Your task to perform on an android device: open app "DuckDuckGo Privacy Browser" Image 0: 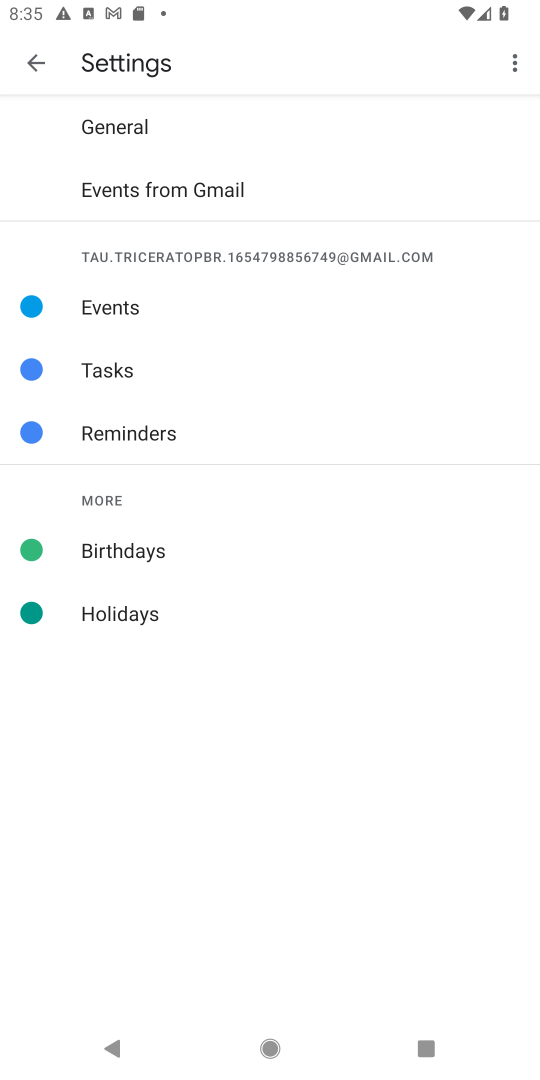
Step 0: press home button
Your task to perform on an android device: open app "DuckDuckGo Privacy Browser" Image 1: 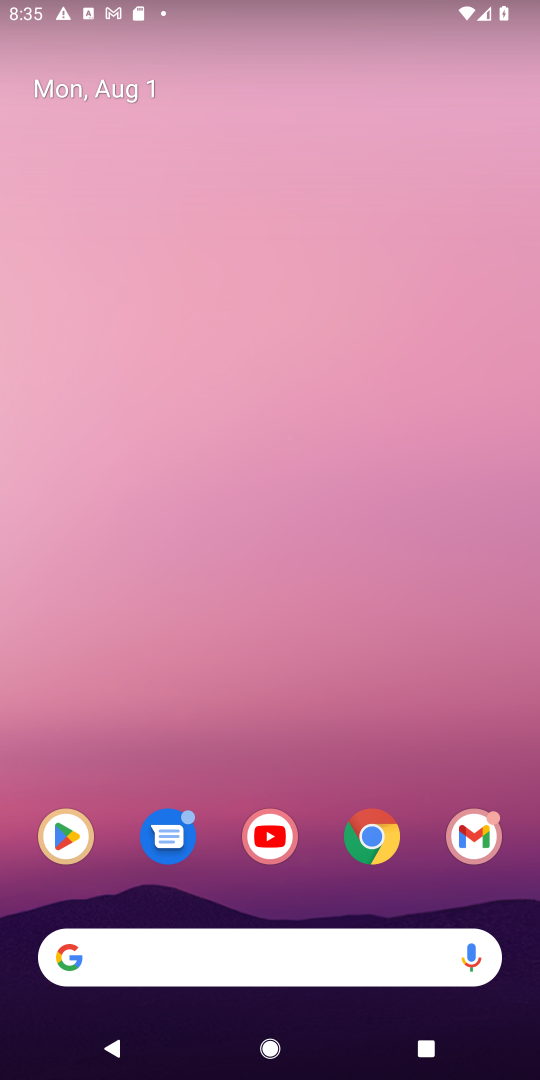
Step 1: click (67, 826)
Your task to perform on an android device: open app "DuckDuckGo Privacy Browser" Image 2: 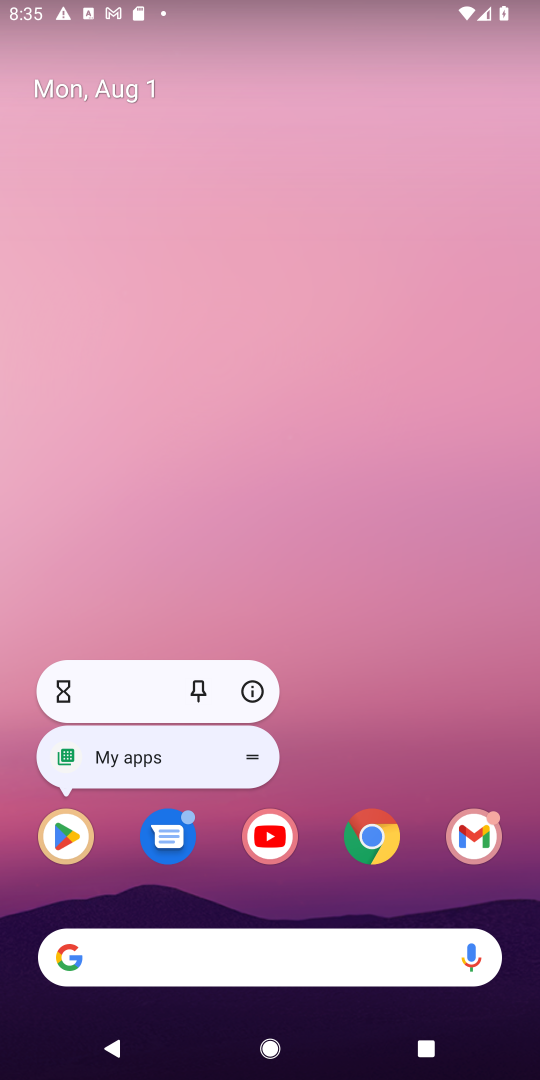
Step 2: click (67, 833)
Your task to perform on an android device: open app "DuckDuckGo Privacy Browser" Image 3: 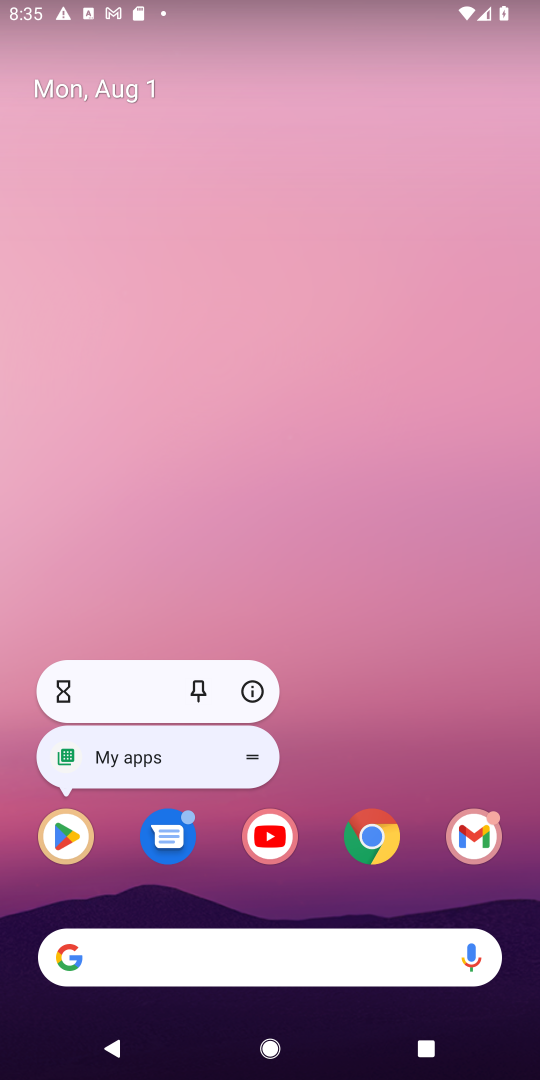
Step 3: click (68, 834)
Your task to perform on an android device: open app "DuckDuckGo Privacy Browser" Image 4: 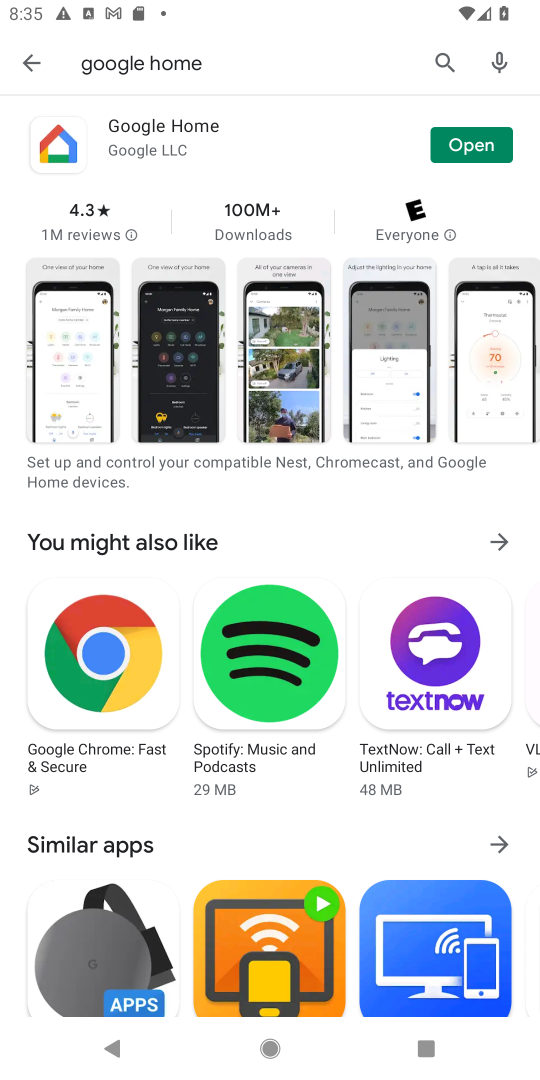
Step 4: click (447, 65)
Your task to perform on an android device: open app "DuckDuckGo Privacy Browser" Image 5: 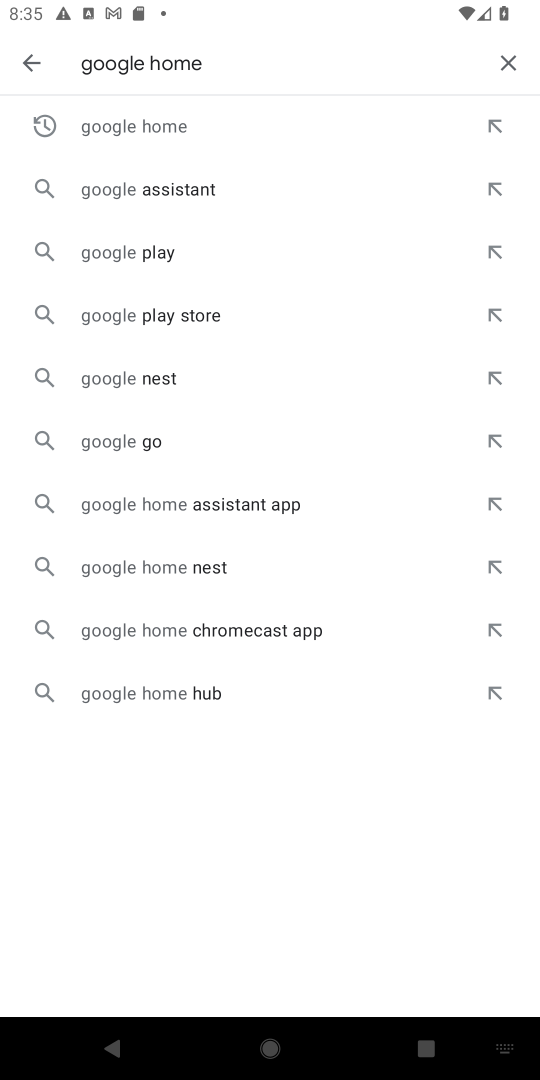
Step 5: click (502, 59)
Your task to perform on an android device: open app "DuckDuckGo Privacy Browser" Image 6: 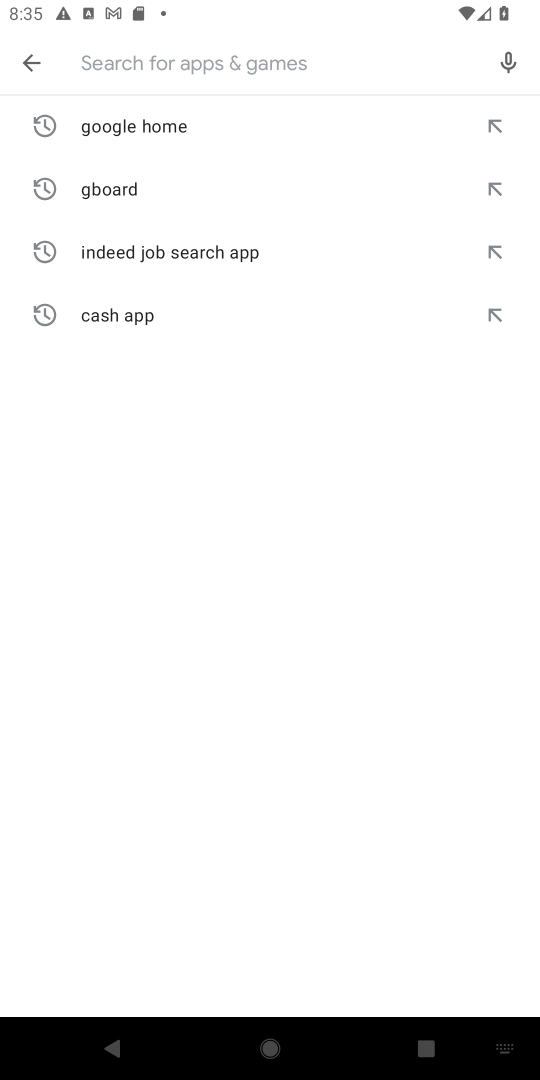
Step 6: type "DuckDuckGo Privacy Browser"
Your task to perform on an android device: open app "DuckDuckGo Privacy Browser" Image 7: 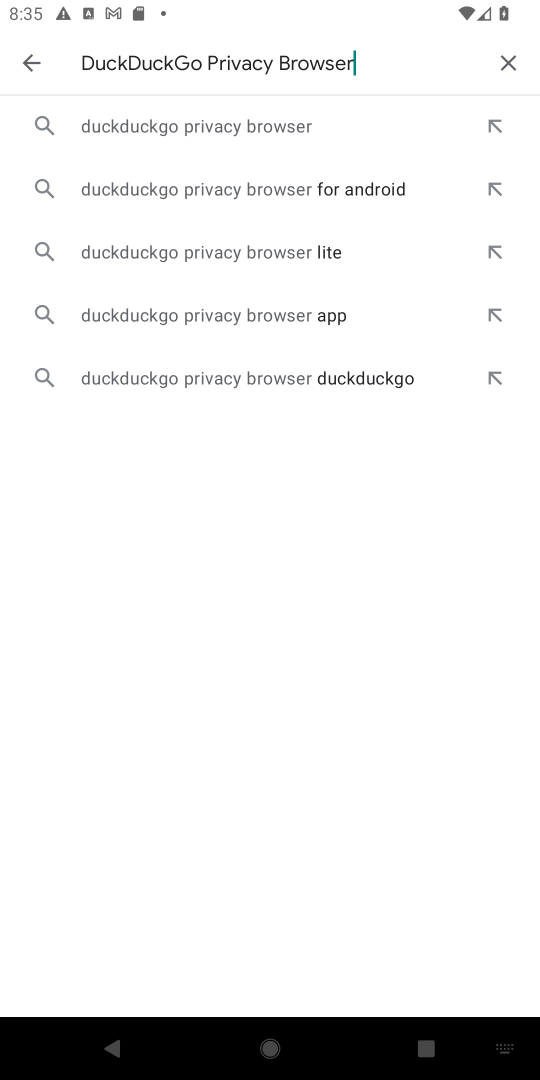
Step 7: click (250, 112)
Your task to perform on an android device: open app "DuckDuckGo Privacy Browser" Image 8: 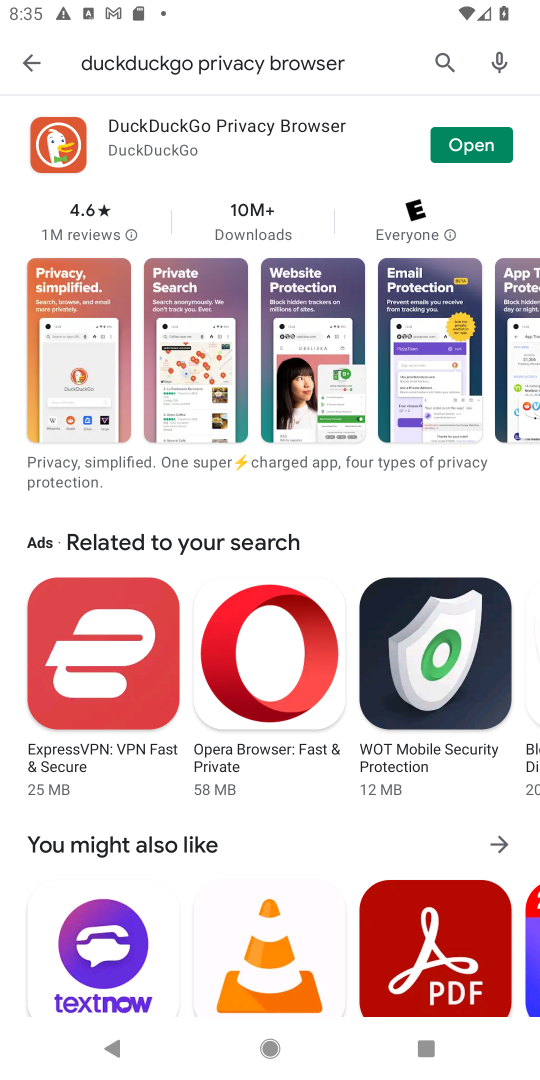
Step 8: click (474, 139)
Your task to perform on an android device: open app "DuckDuckGo Privacy Browser" Image 9: 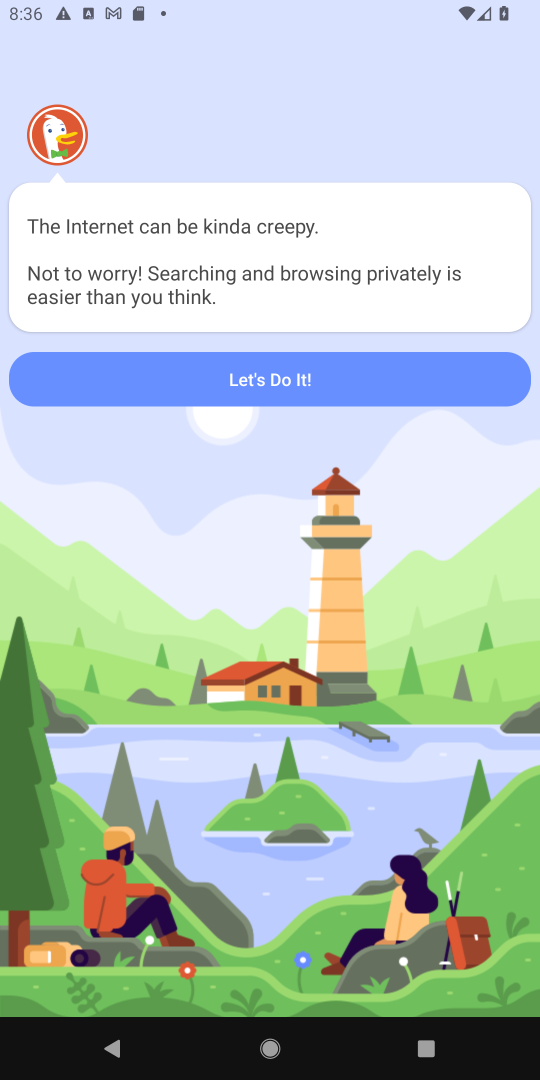
Step 9: task complete